Your task to perform on an android device: toggle airplane mode Image 0: 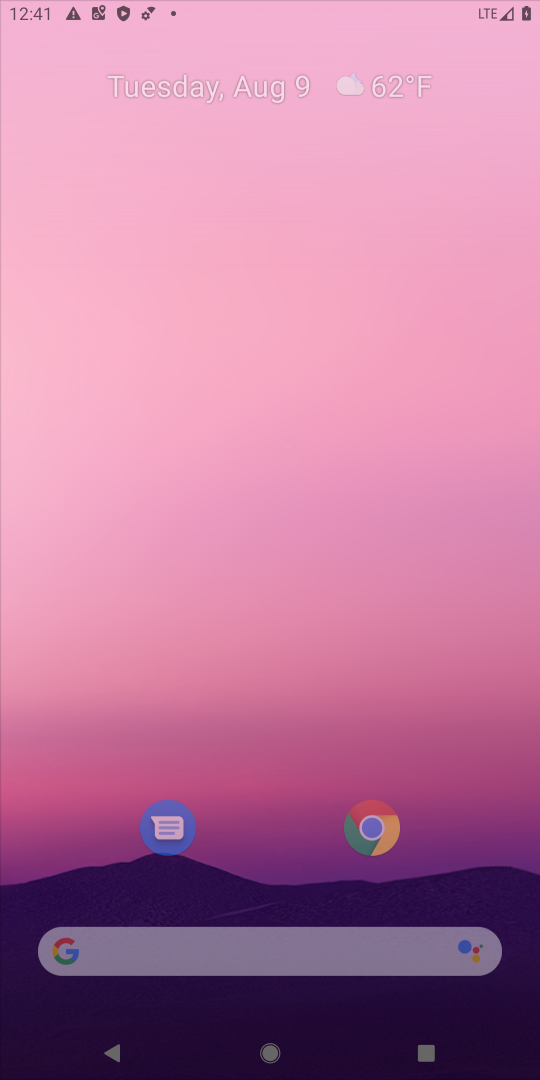
Step 0: press back button
Your task to perform on an android device: toggle airplane mode Image 1: 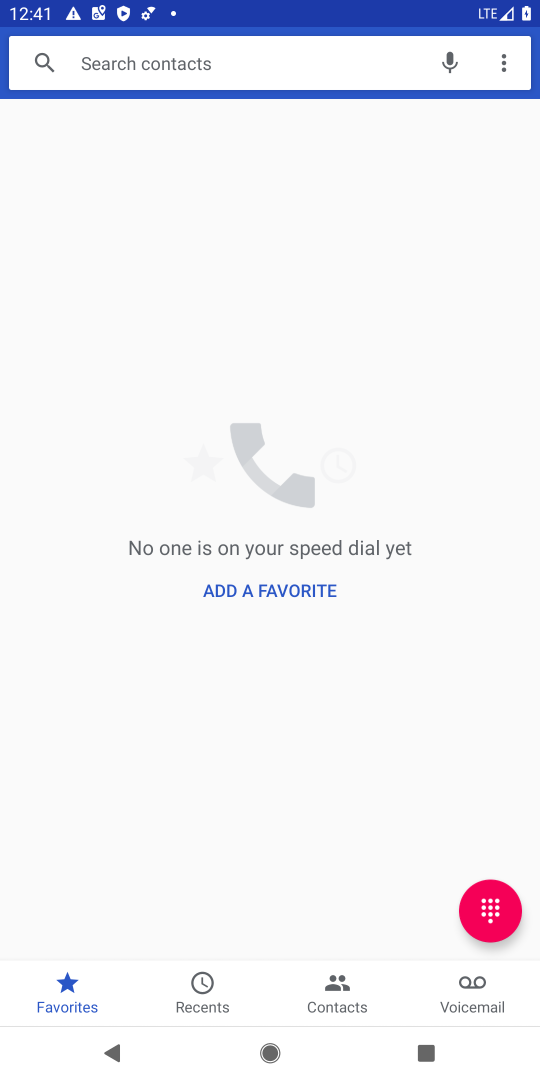
Step 1: drag from (272, 753) to (296, 215)
Your task to perform on an android device: toggle airplane mode Image 2: 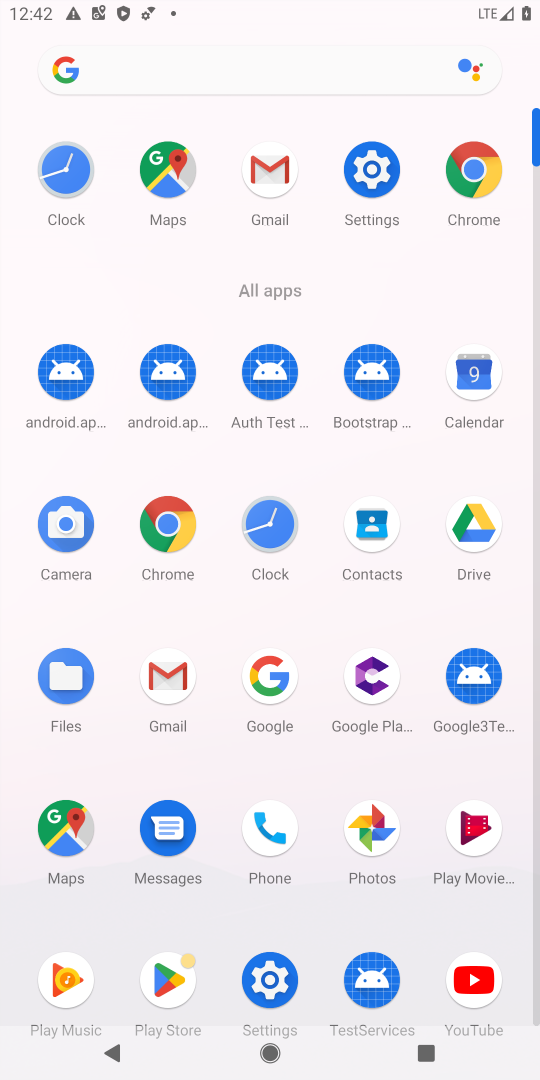
Step 2: drag from (480, 45) to (425, 880)
Your task to perform on an android device: toggle airplane mode Image 3: 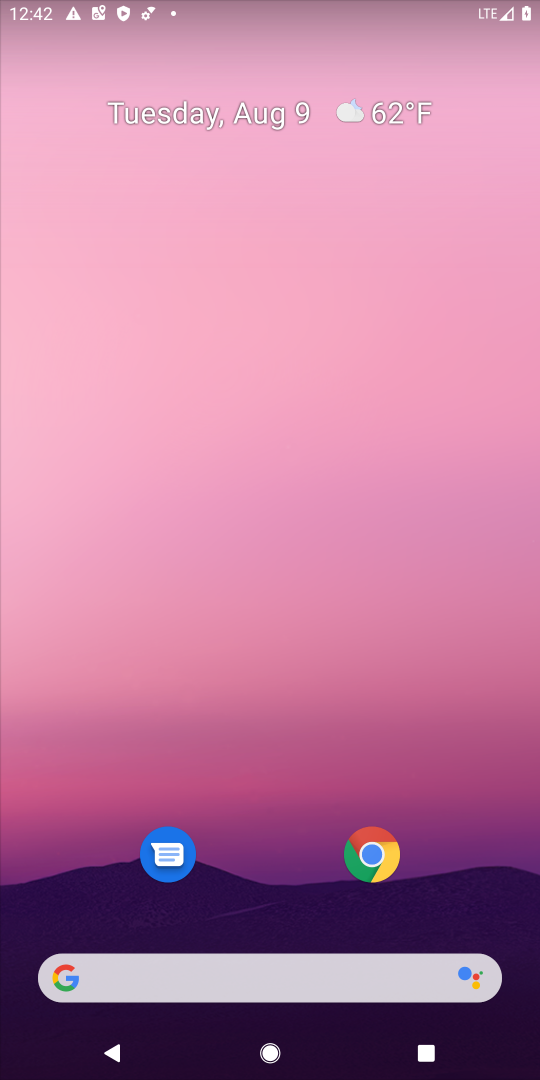
Step 3: drag from (474, 7) to (467, 722)
Your task to perform on an android device: toggle airplane mode Image 4: 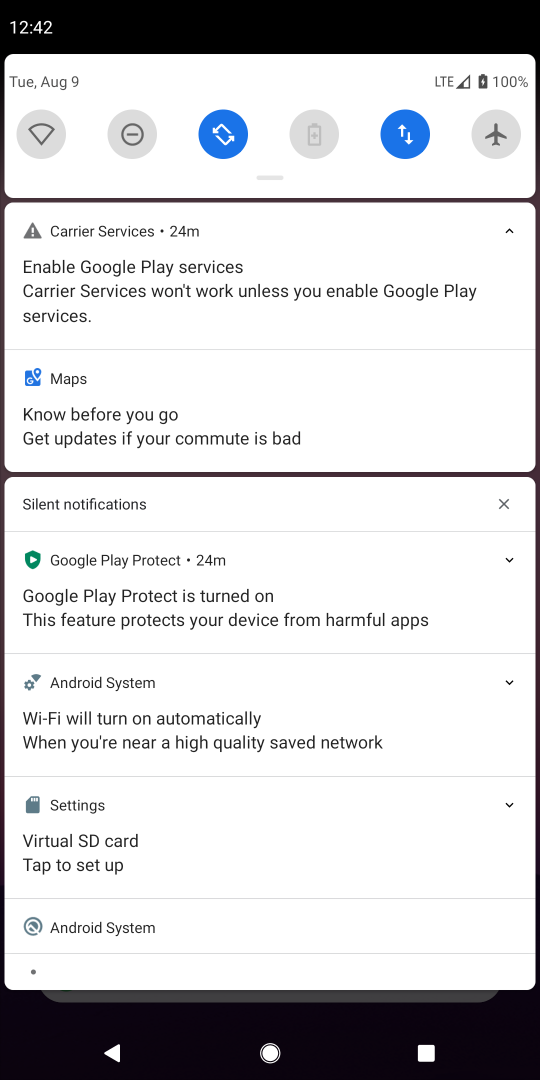
Step 4: click (499, 133)
Your task to perform on an android device: toggle airplane mode Image 5: 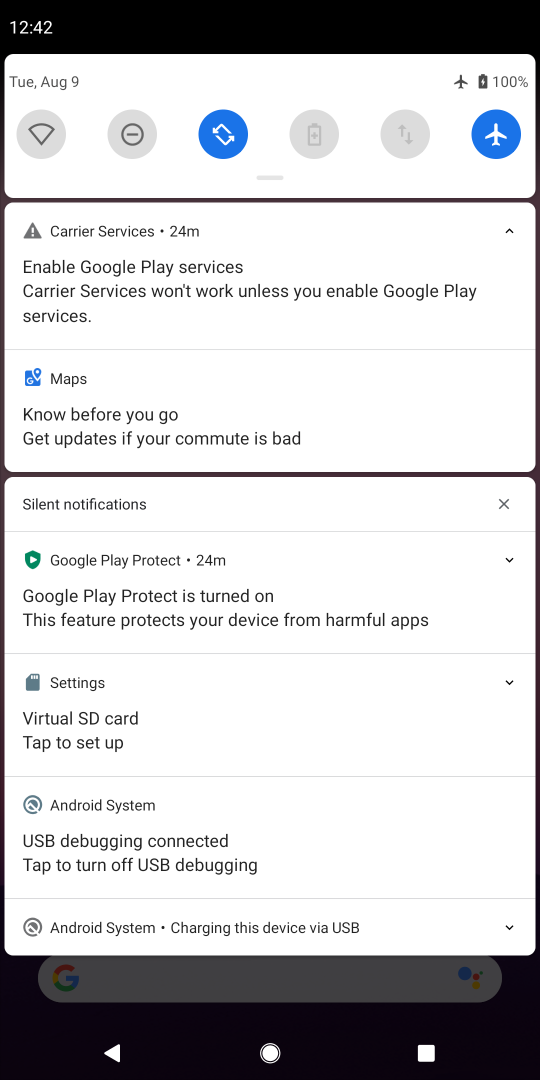
Step 5: task complete